Your task to perform on an android device: See recent photos Image 0: 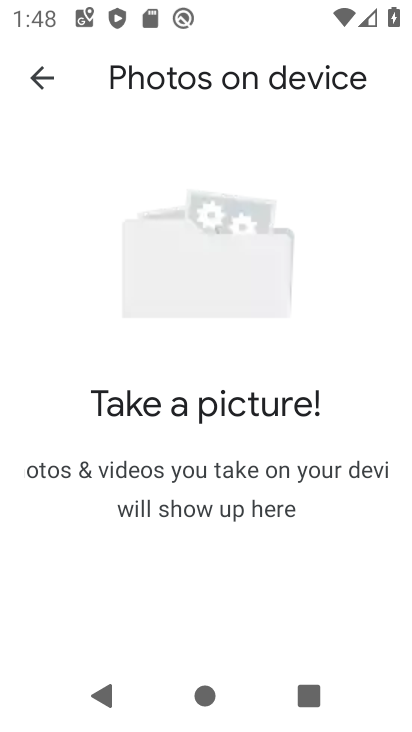
Step 0: press home button
Your task to perform on an android device: See recent photos Image 1: 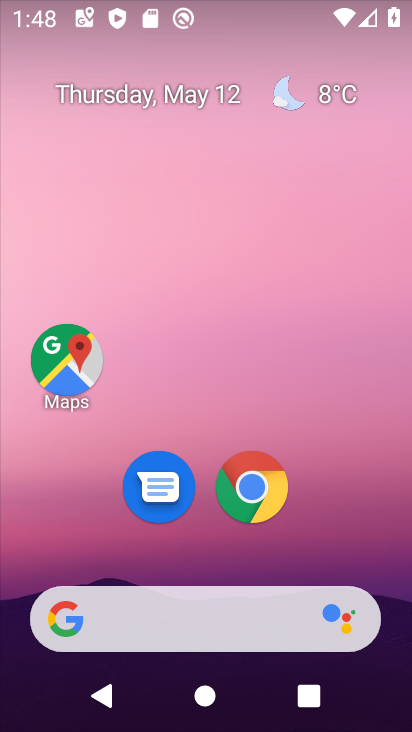
Step 1: drag from (288, 555) to (275, 40)
Your task to perform on an android device: See recent photos Image 2: 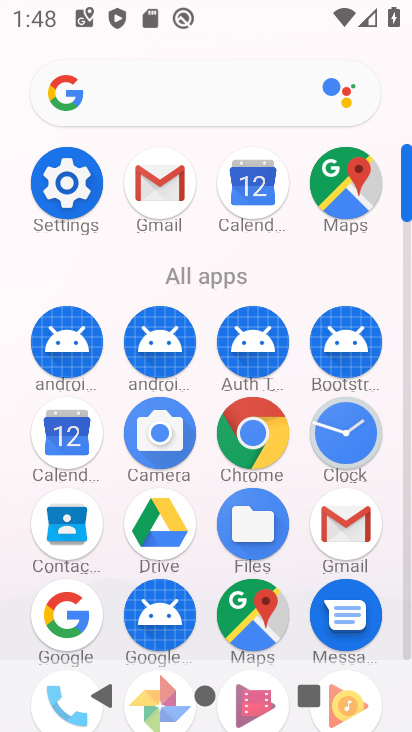
Step 2: drag from (208, 552) to (232, 156)
Your task to perform on an android device: See recent photos Image 3: 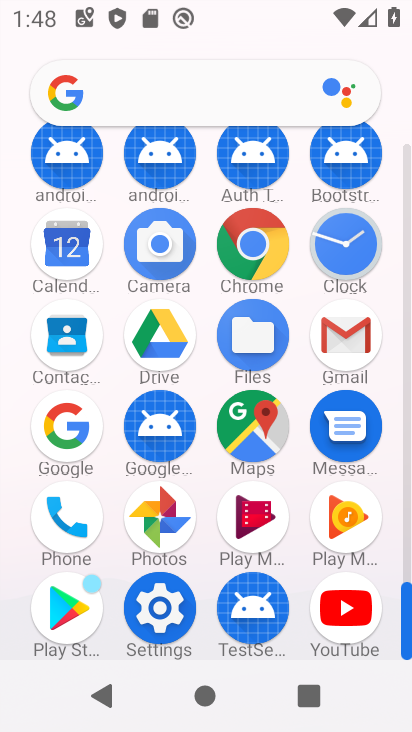
Step 3: click (157, 545)
Your task to perform on an android device: See recent photos Image 4: 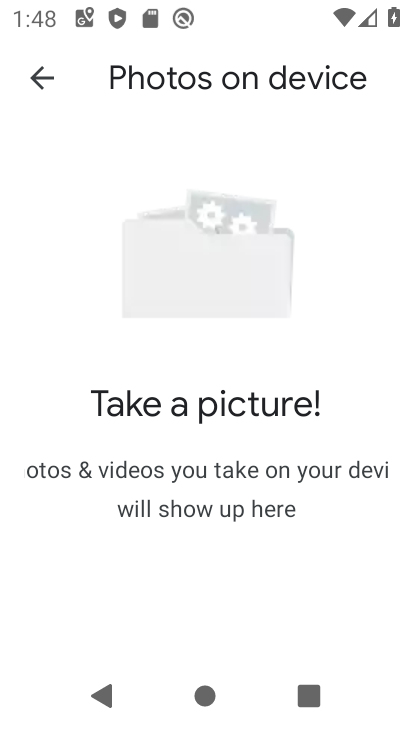
Step 4: click (38, 86)
Your task to perform on an android device: See recent photos Image 5: 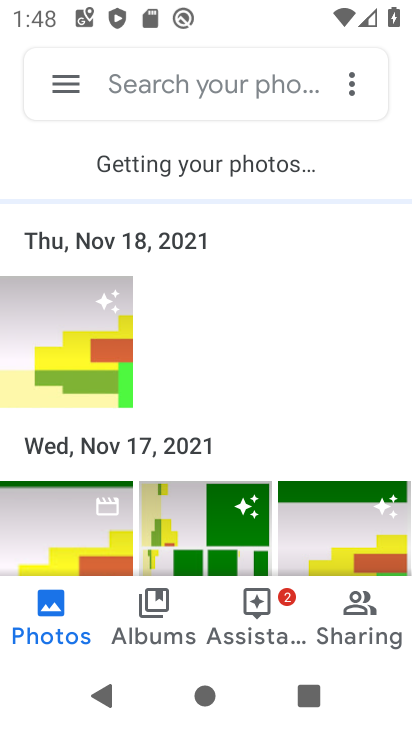
Step 5: task complete